Your task to perform on an android device: toggle pop-ups in chrome Image 0: 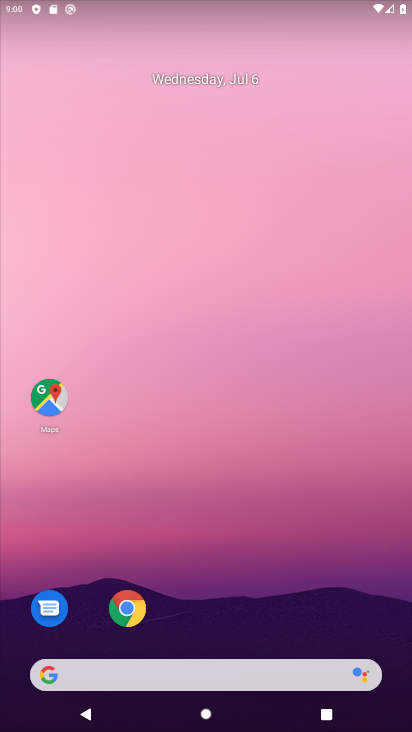
Step 0: click (125, 605)
Your task to perform on an android device: toggle pop-ups in chrome Image 1: 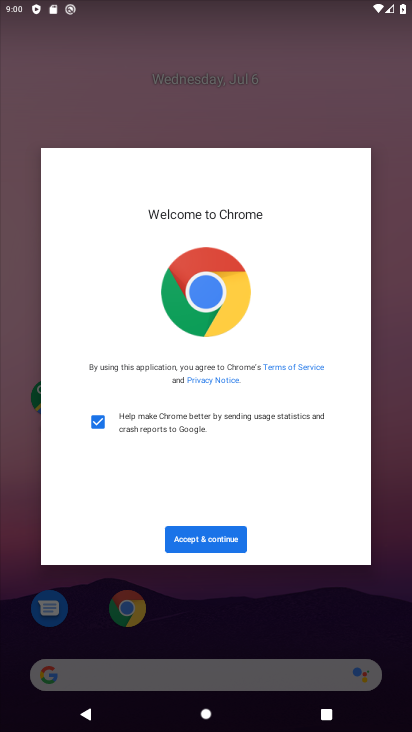
Step 1: click (196, 537)
Your task to perform on an android device: toggle pop-ups in chrome Image 2: 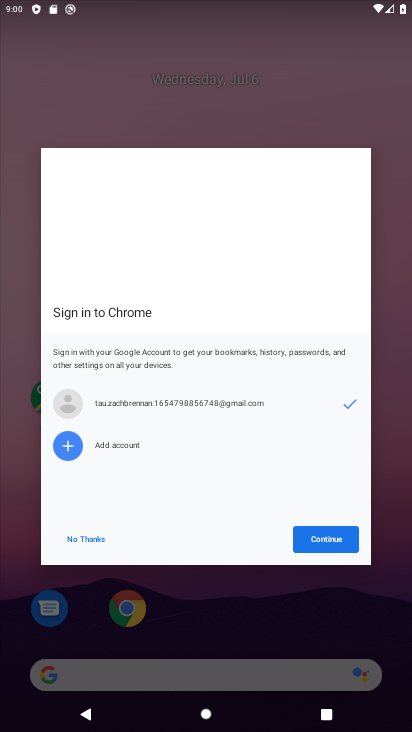
Step 2: click (316, 538)
Your task to perform on an android device: toggle pop-ups in chrome Image 3: 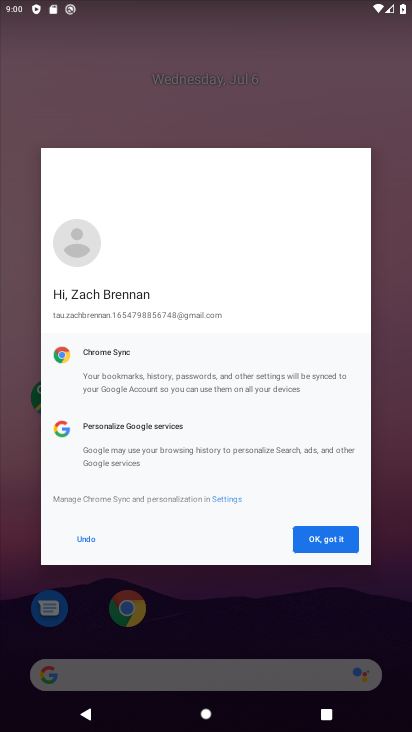
Step 3: click (323, 538)
Your task to perform on an android device: toggle pop-ups in chrome Image 4: 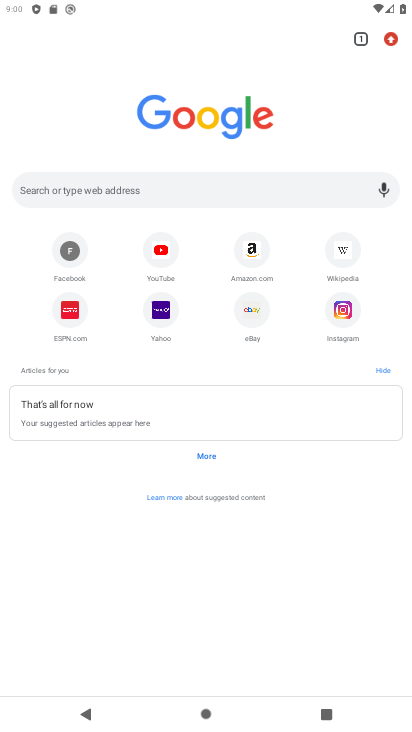
Step 4: click (388, 35)
Your task to perform on an android device: toggle pop-ups in chrome Image 5: 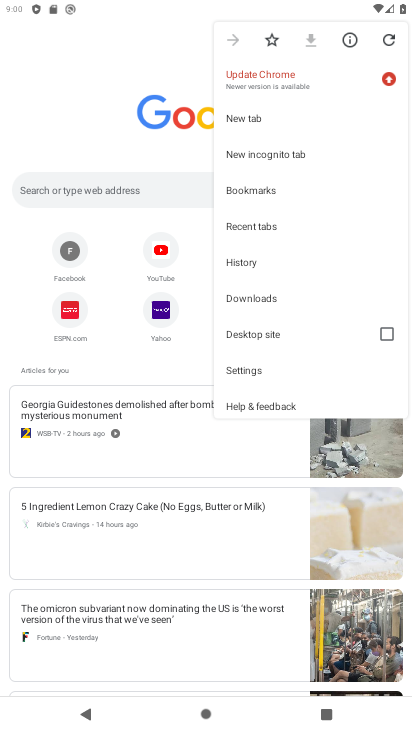
Step 5: click (241, 368)
Your task to perform on an android device: toggle pop-ups in chrome Image 6: 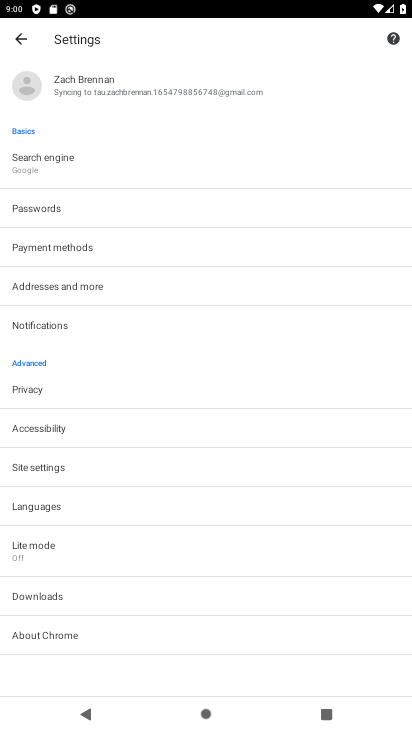
Step 6: click (41, 464)
Your task to perform on an android device: toggle pop-ups in chrome Image 7: 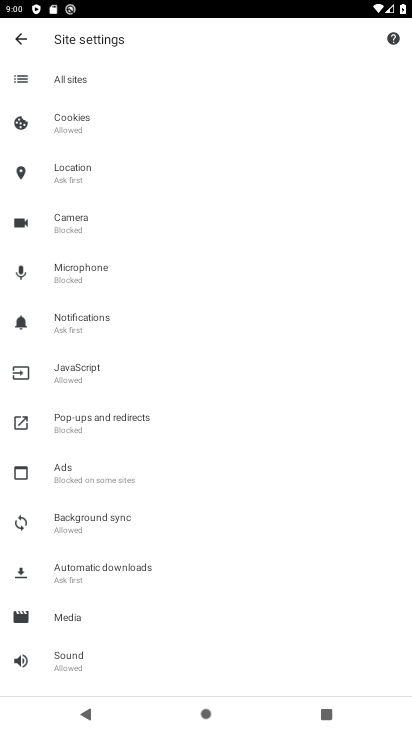
Step 7: click (85, 413)
Your task to perform on an android device: toggle pop-ups in chrome Image 8: 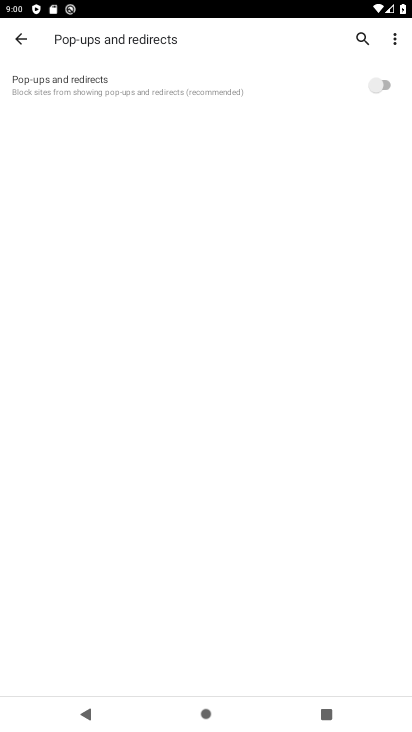
Step 8: click (374, 81)
Your task to perform on an android device: toggle pop-ups in chrome Image 9: 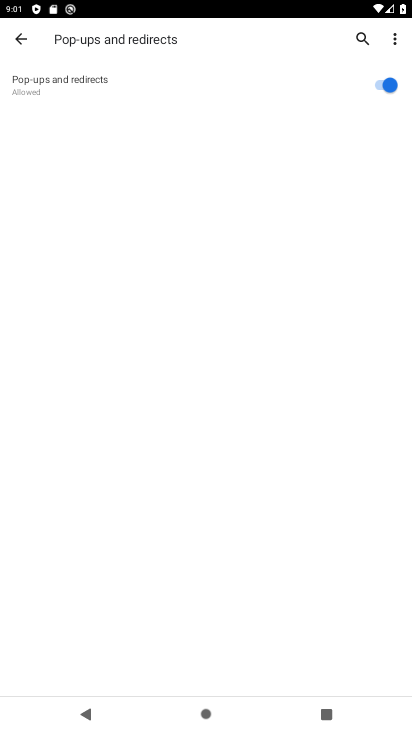
Step 9: task complete